Your task to perform on an android device: turn on javascript in the chrome app Image 0: 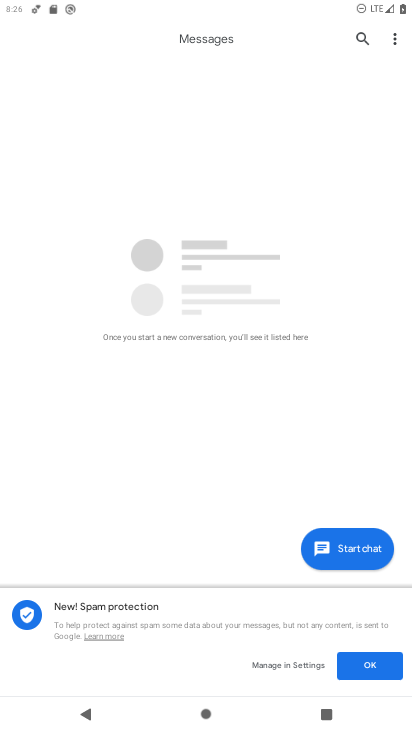
Step 0: press home button
Your task to perform on an android device: turn on javascript in the chrome app Image 1: 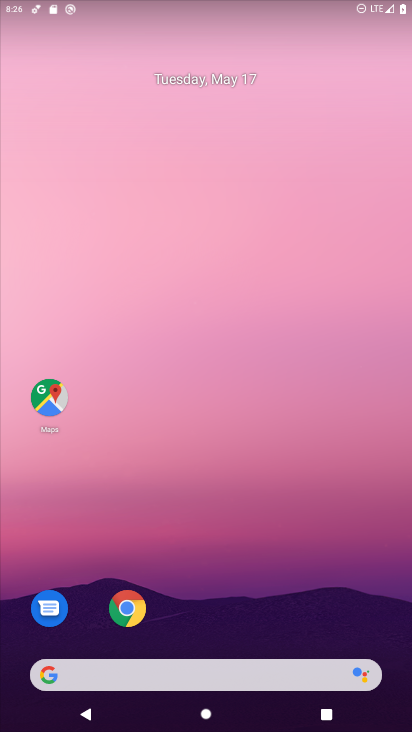
Step 1: click (129, 604)
Your task to perform on an android device: turn on javascript in the chrome app Image 2: 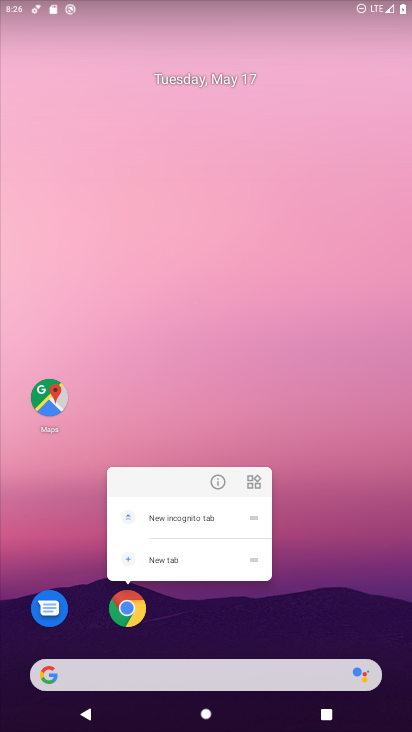
Step 2: click (136, 605)
Your task to perform on an android device: turn on javascript in the chrome app Image 3: 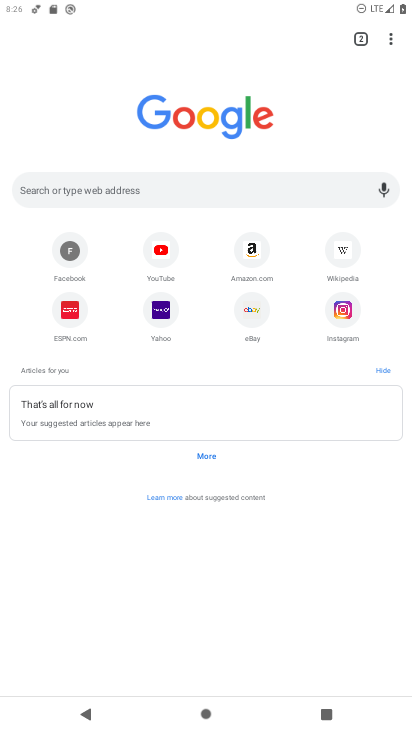
Step 3: click (392, 45)
Your task to perform on an android device: turn on javascript in the chrome app Image 4: 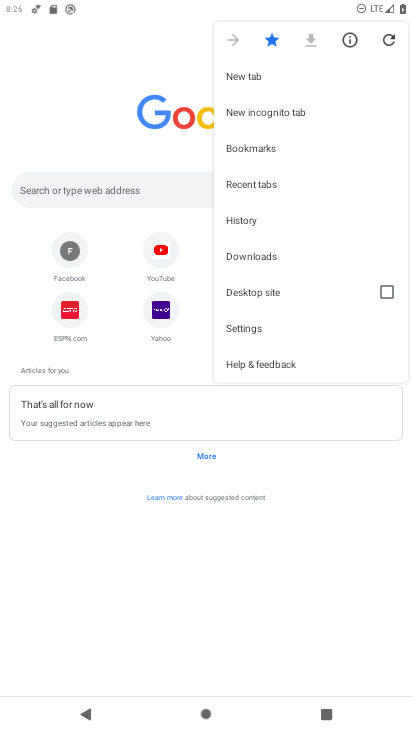
Step 4: click (246, 330)
Your task to perform on an android device: turn on javascript in the chrome app Image 5: 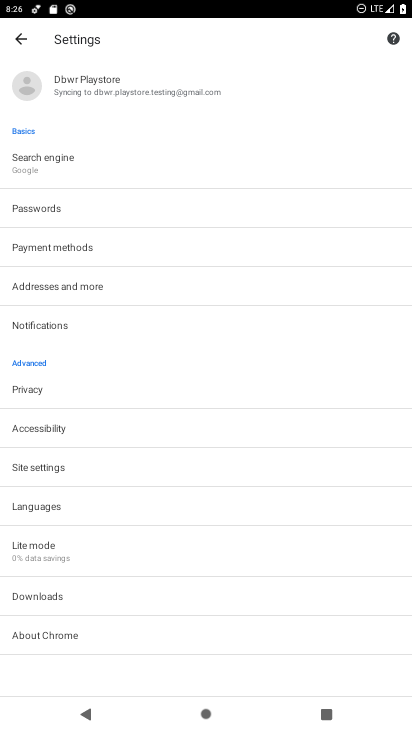
Step 5: click (52, 474)
Your task to perform on an android device: turn on javascript in the chrome app Image 6: 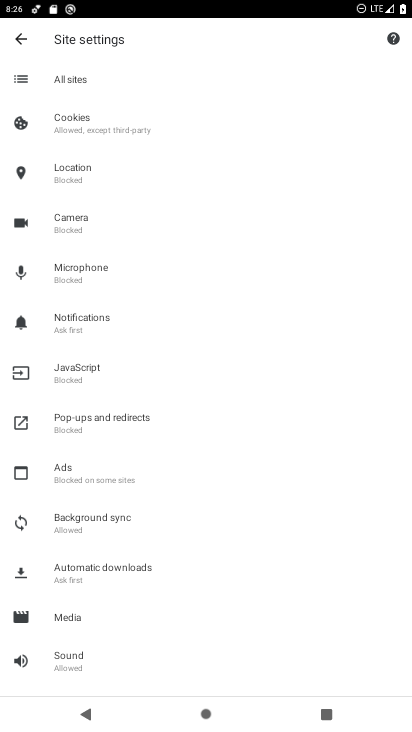
Step 6: click (81, 381)
Your task to perform on an android device: turn on javascript in the chrome app Image 7: 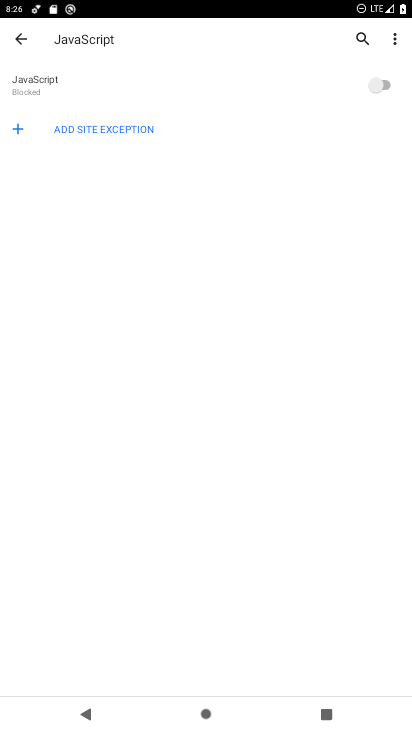
Step 7: click (391, 87)
Your task to perform on an android device: turn on javascript in the chrome app Image 8: 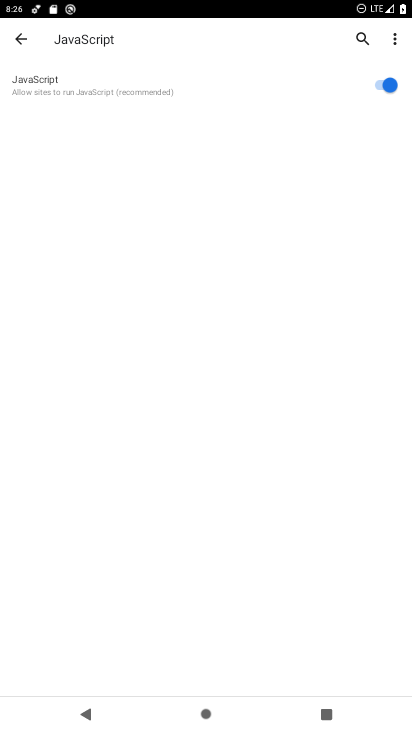
Step 8: task complete